Your task to perform on an android device: change notification settings in the gmail app Image 0: 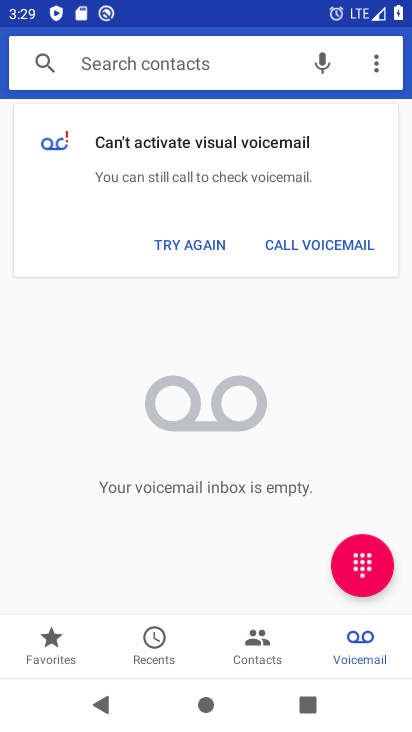
Step 0: press home button
Your task to perform on an android device: change notification settings in the gmail app Image 1: 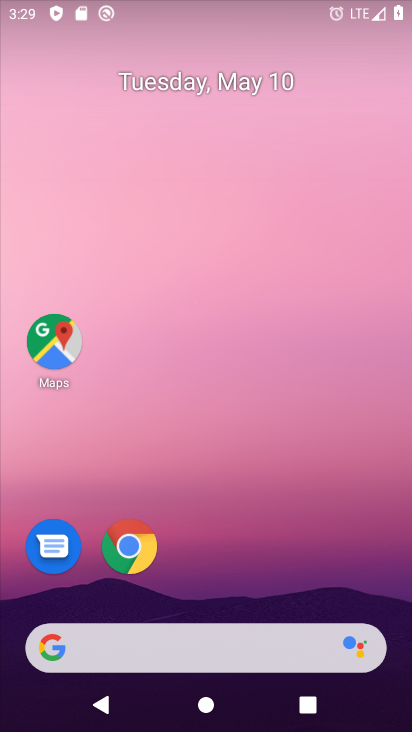
Step 1: drag from (239, 563) to (331, 15)
Your task to perform on an android device: change notification settings in the gmail app Image 2: 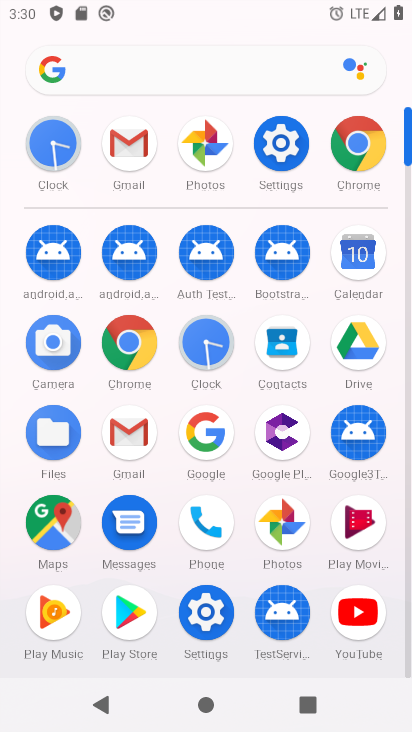
Step 2: click (105, 435)
Your task to perform on an android device: change notification settings in the gmail app Image 3: 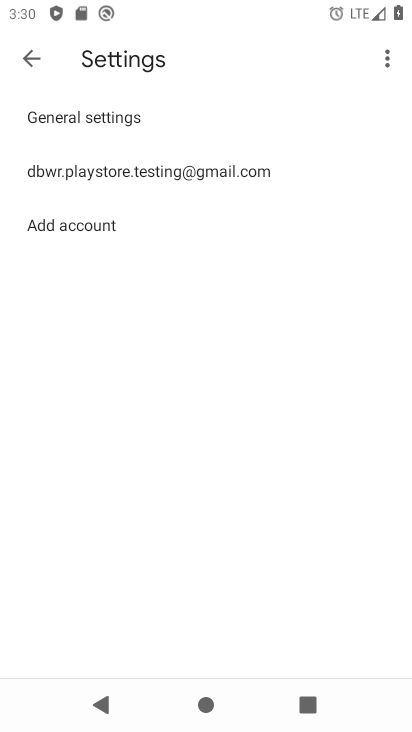
Step 3: click (111, 107)
Your task to perform on an android device: change notification settings in the gmail app Image 4: 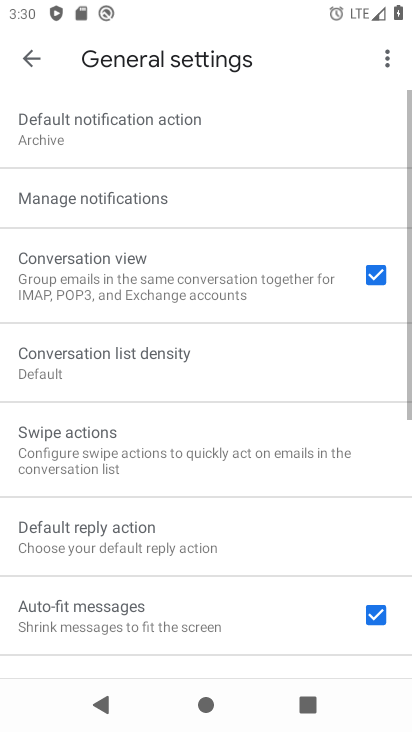
Step 4: click (124, 187)
Your task to perform on an android device: change notification settings in the gmail app Image 5: 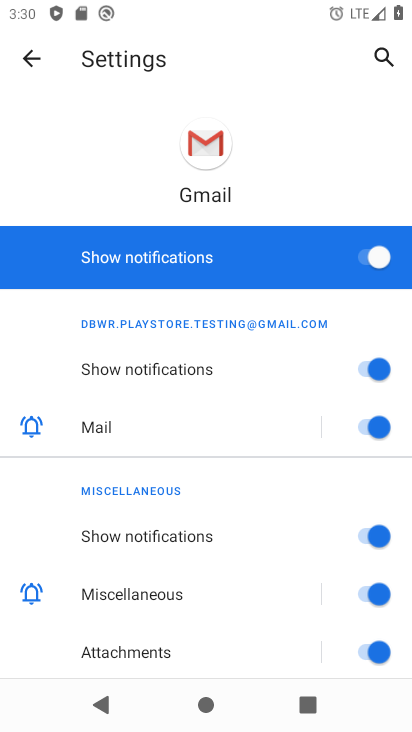
Step 5: click (365, 251)
Your task to perform on an android device: change notification settings in the gmail app Image 6: 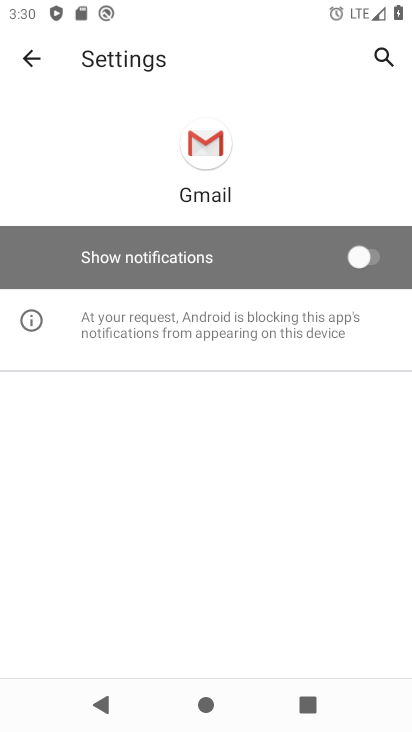
Step 6: task complete